Your task to perform on an android device: turn on javascript in the chrome app Image 0: 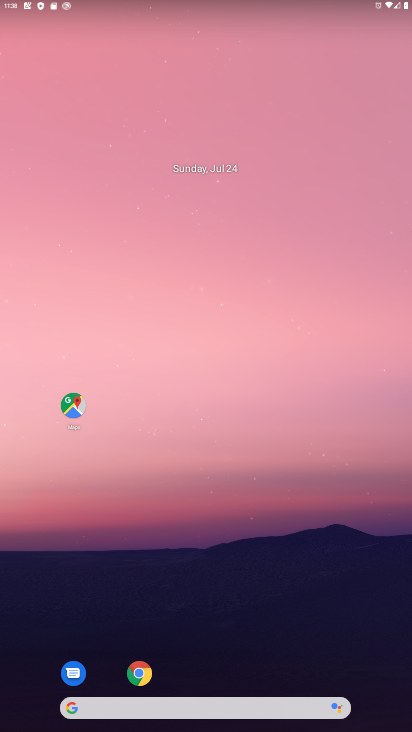
Step 0: drag from (306, 647) to (310, 22)
Your task to perform on an android device: turn on javascript in the chrome app Image 1: 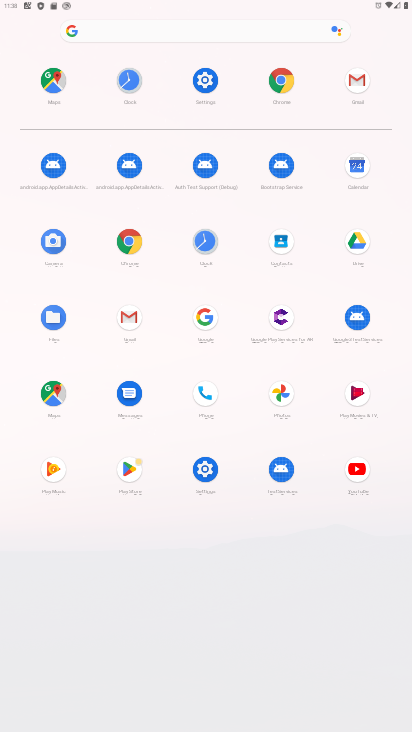
Step 1: click (277, 81)
Your task to perform on an android device: turn on javascript in the chrome app Image 2: 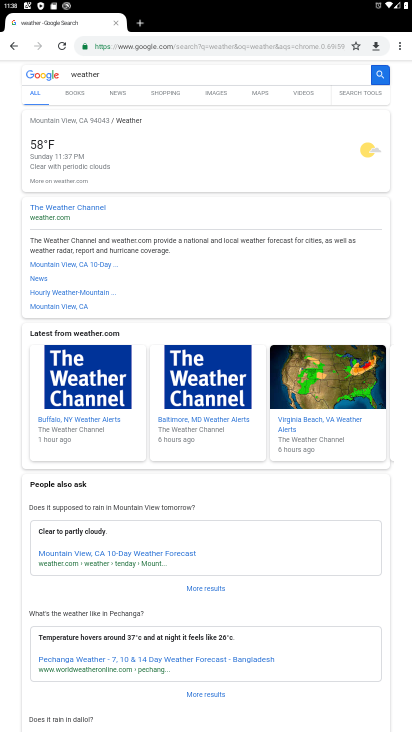
Step 2: drag from (400, 34) to (323, 311)
Your task to perform on an android device: turn on javascript in the chrome app Image 3: 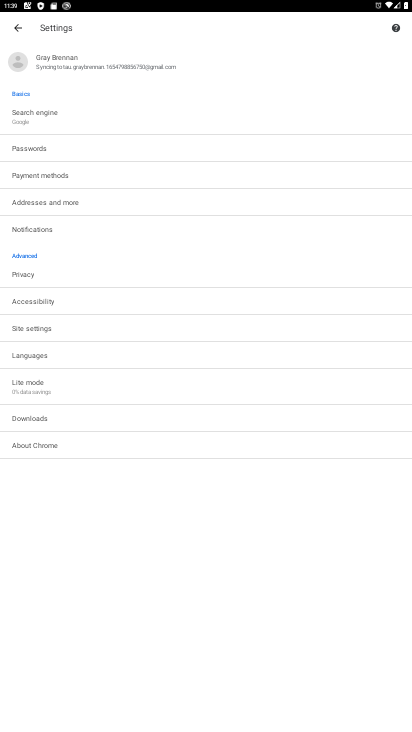
Step 3: click (107, 356)
Your task to perform on an android device: turn on javascript in the chrome app Image 4: 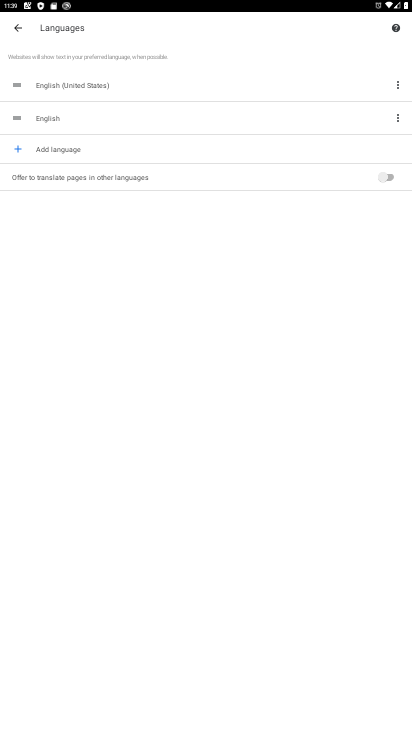
Step 4: click (18, 24)
Your task to perform on an android device: turn on javascript in the chrome app Image 5: 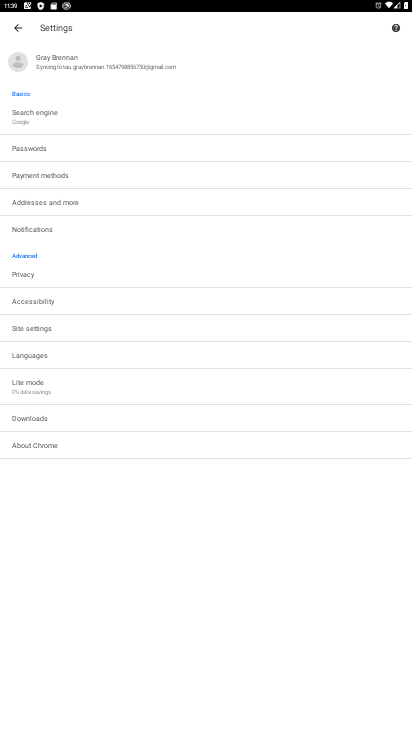
Step 5: click (63, 331)
Your task to perform on an android device: turn on javascript in the chrome app Image 6: 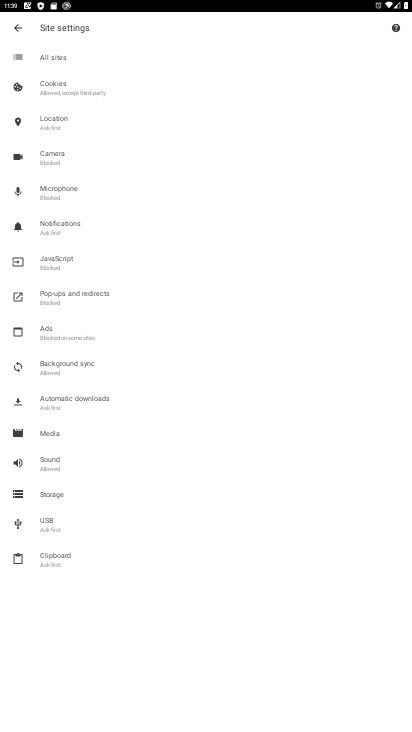
Step 6: click (61, 271)
Your task to perform on an android device: turn on javascript in the chrome app Image 7: 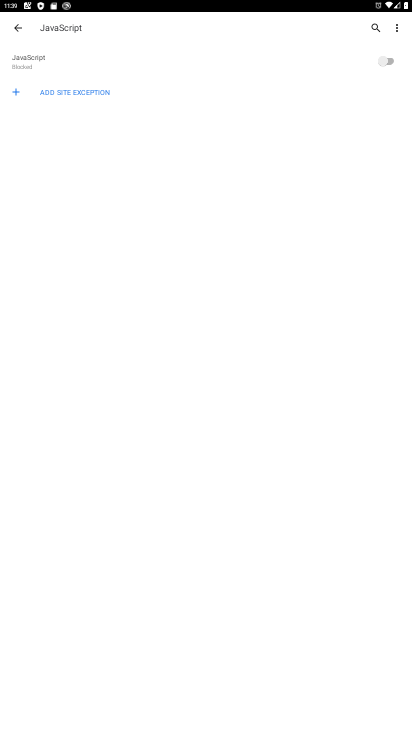
Step 7: click (393, 64)
Your task to perform on an android device: turn on javascript in the chrome app Image 8: 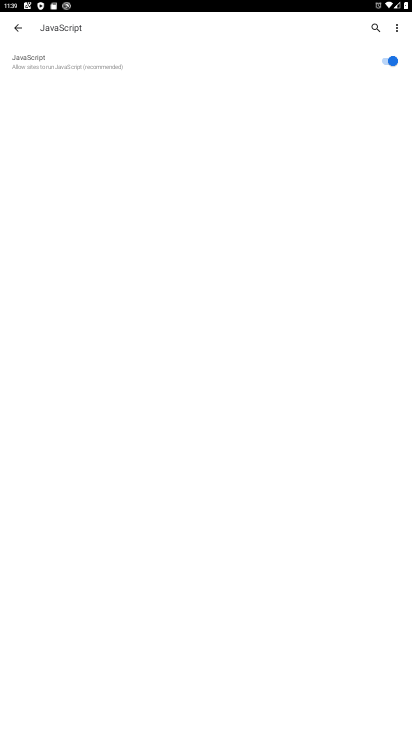
Step 8: task complete